Your task to perform on an android device: open app "Facebook Lite" (install if not already installed) Image 0: 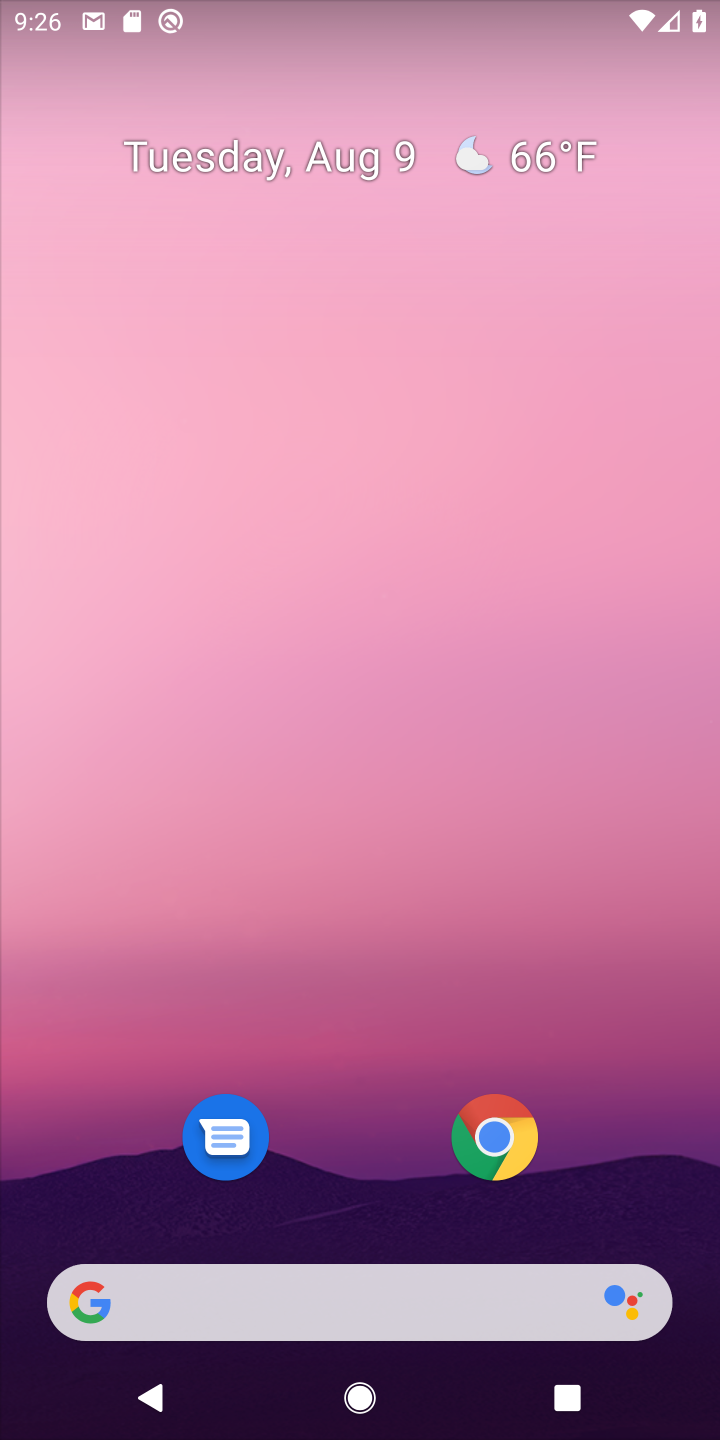
Step 0: drag from (394, 848) to (371, 486)
Your task to perform on an android device: open app "Facebook Lite" (install if not already installed) Image 1: 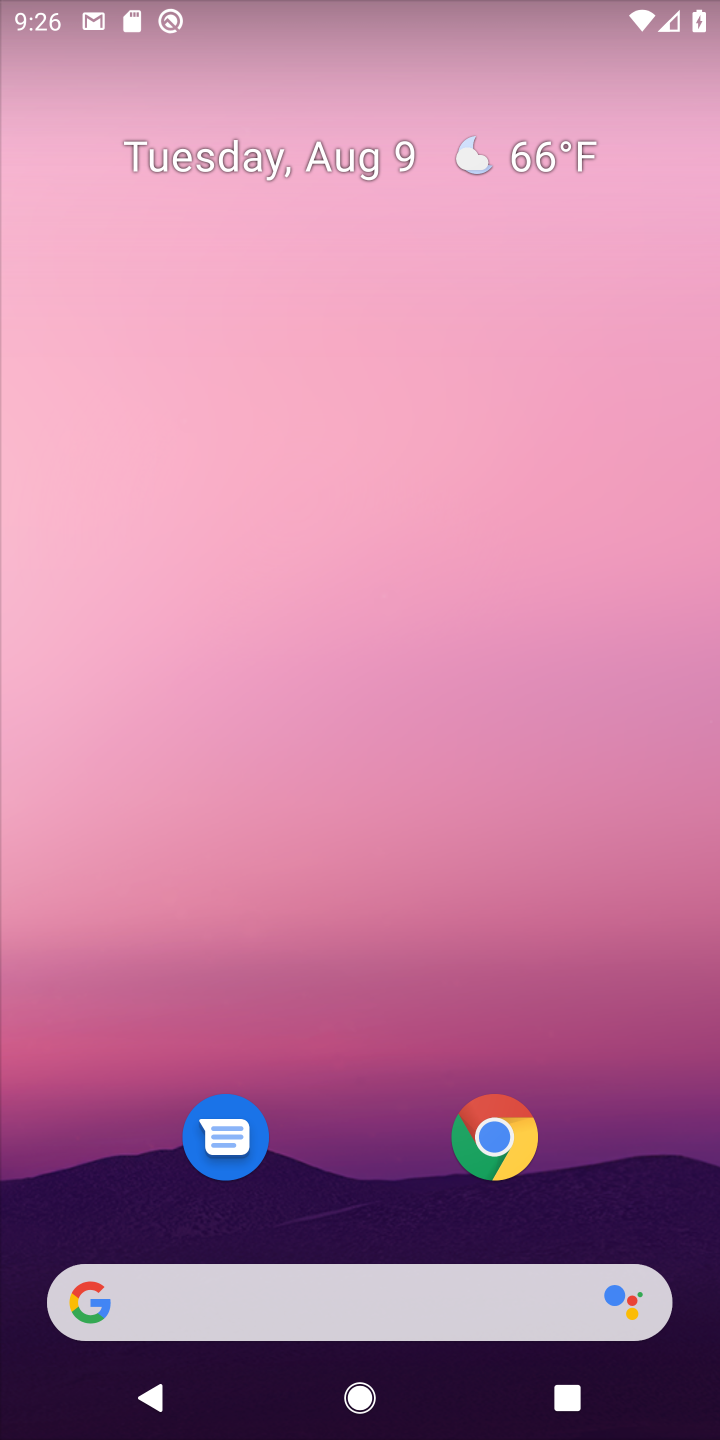
Step 1: drag from (370, 1105) to (388, 670)
Your task to perform on an android device: open app "Facebook Lite" (install if not already installed) Image 2: 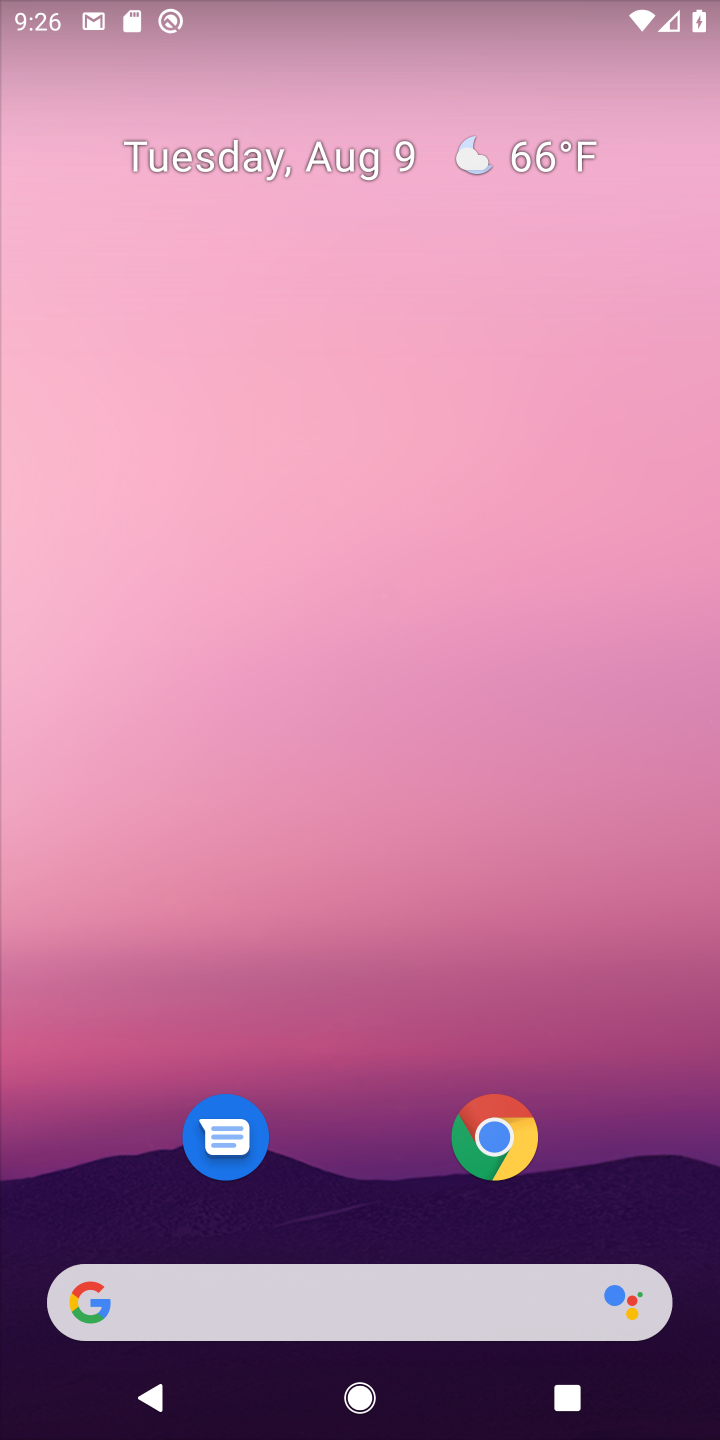
Step 2: drag from (381, 1124) to (323, 349)
Your task to perform on an android device: open app "Facebook Lite" (install if not already installed) Image 3: 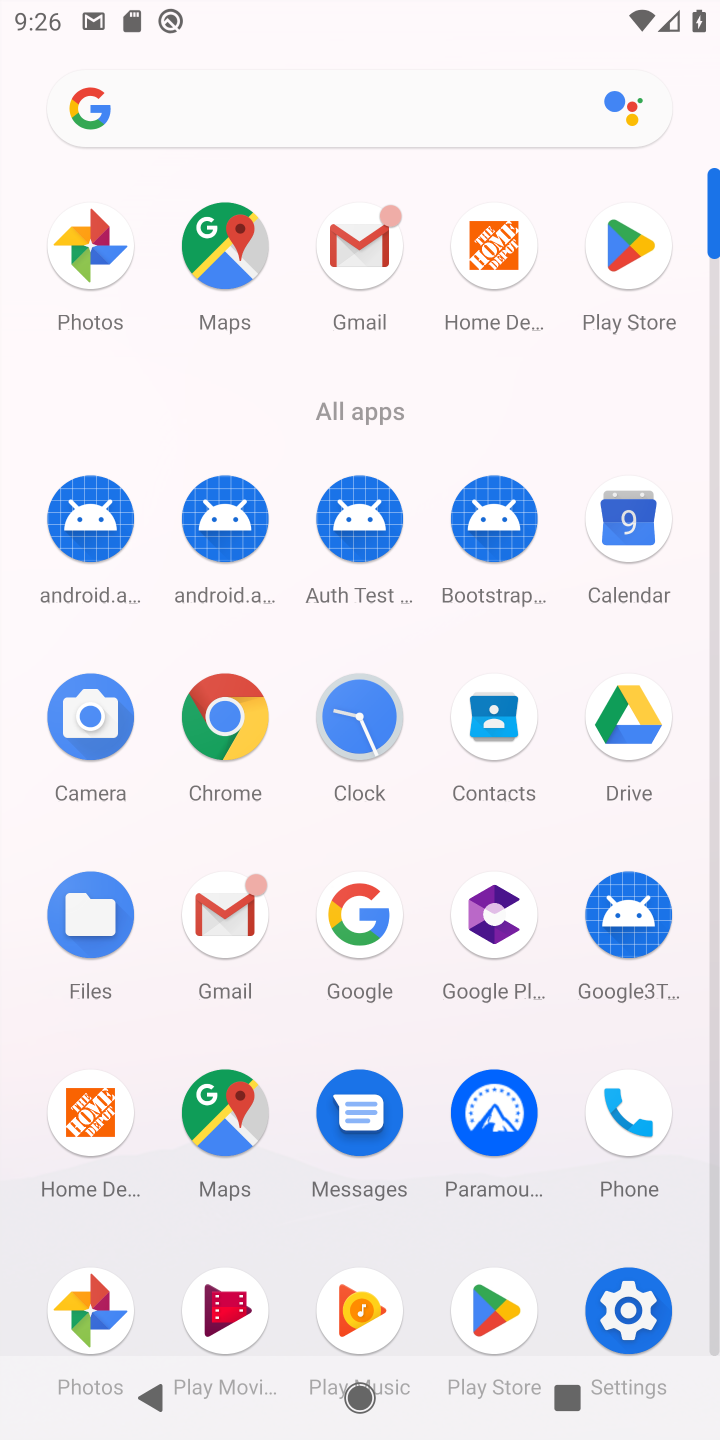
Step 3: click (642, 244)
Your task to perform on an android device: open app "Facebook Lite" (install if not already installed) Image 4: 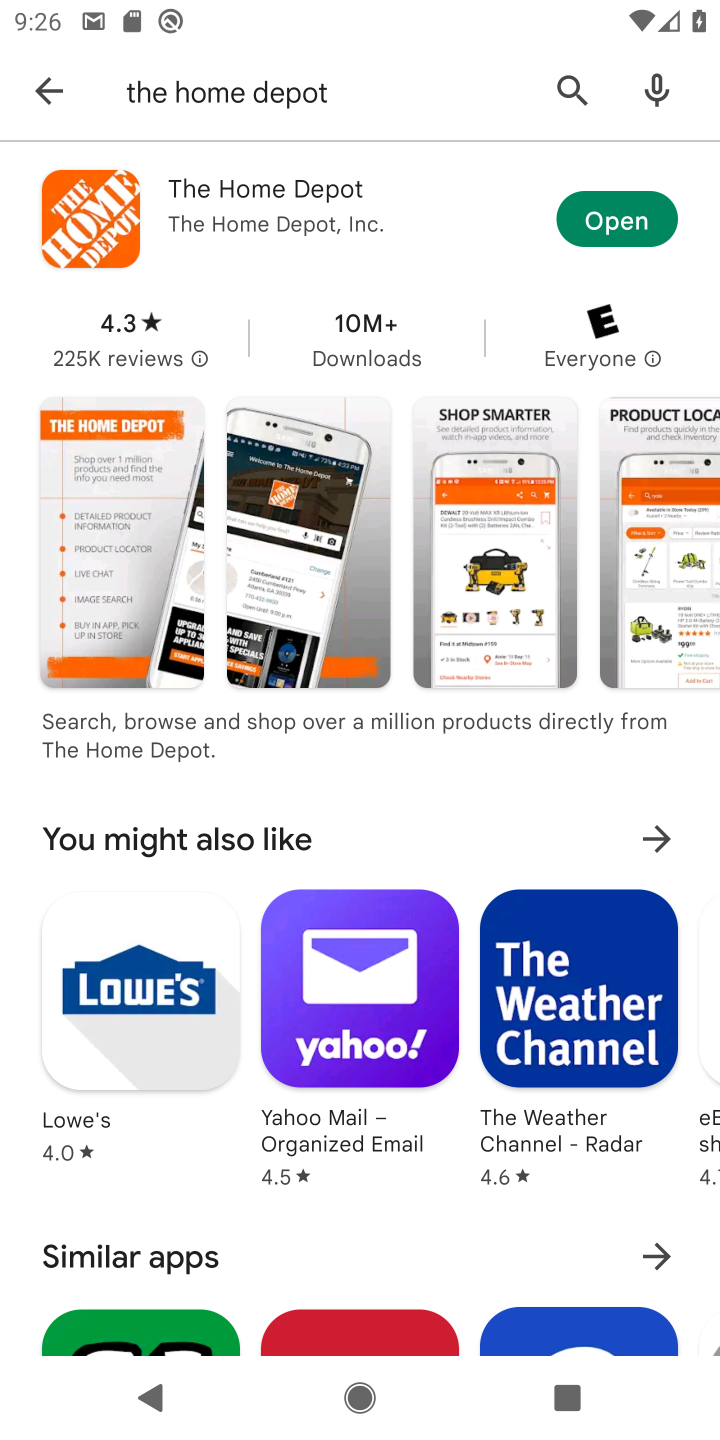
Step 4: click (559, 90)
Your task to perform on an android device: open app "Facebook Lite" (install if not already installed) Image 5: 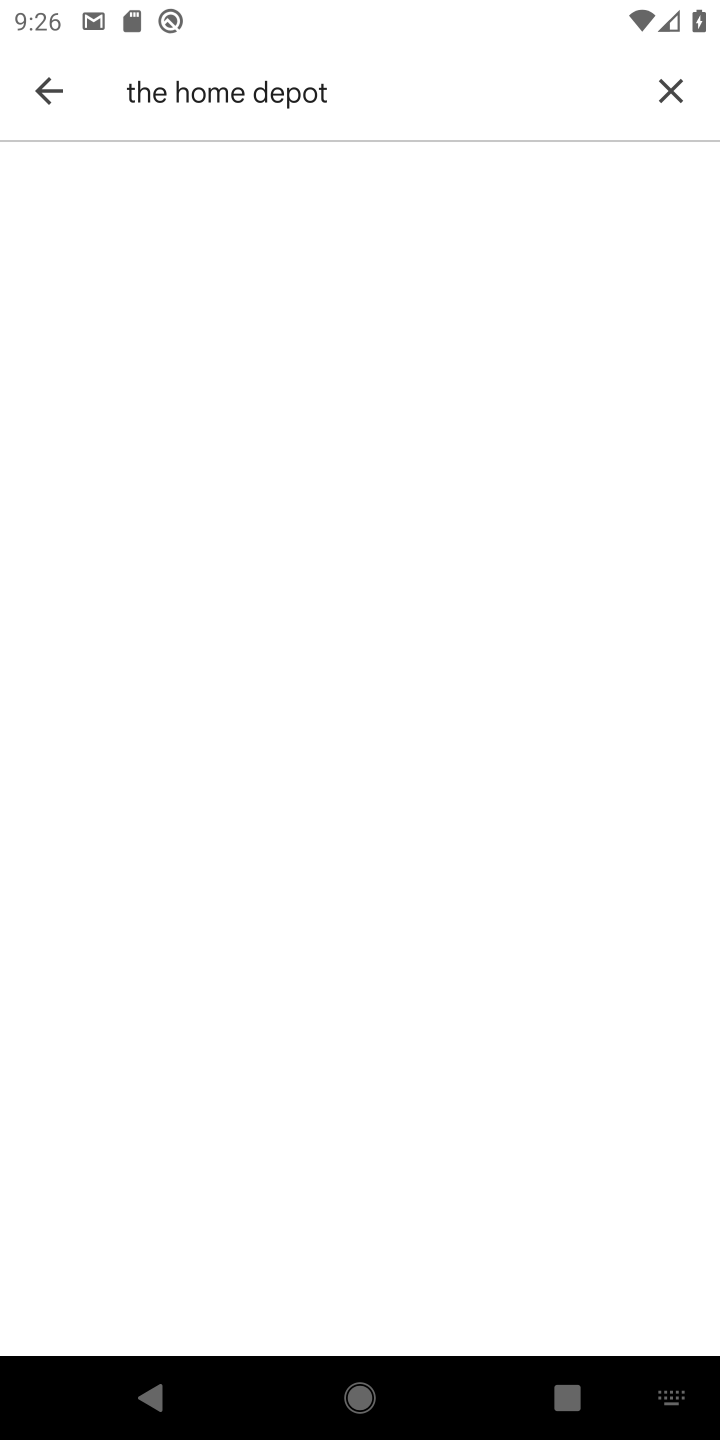
Step 5: click (675, 88)
Your task to perform on an android device: open app "Facebook Lite" (install if not already installed) Image 6: 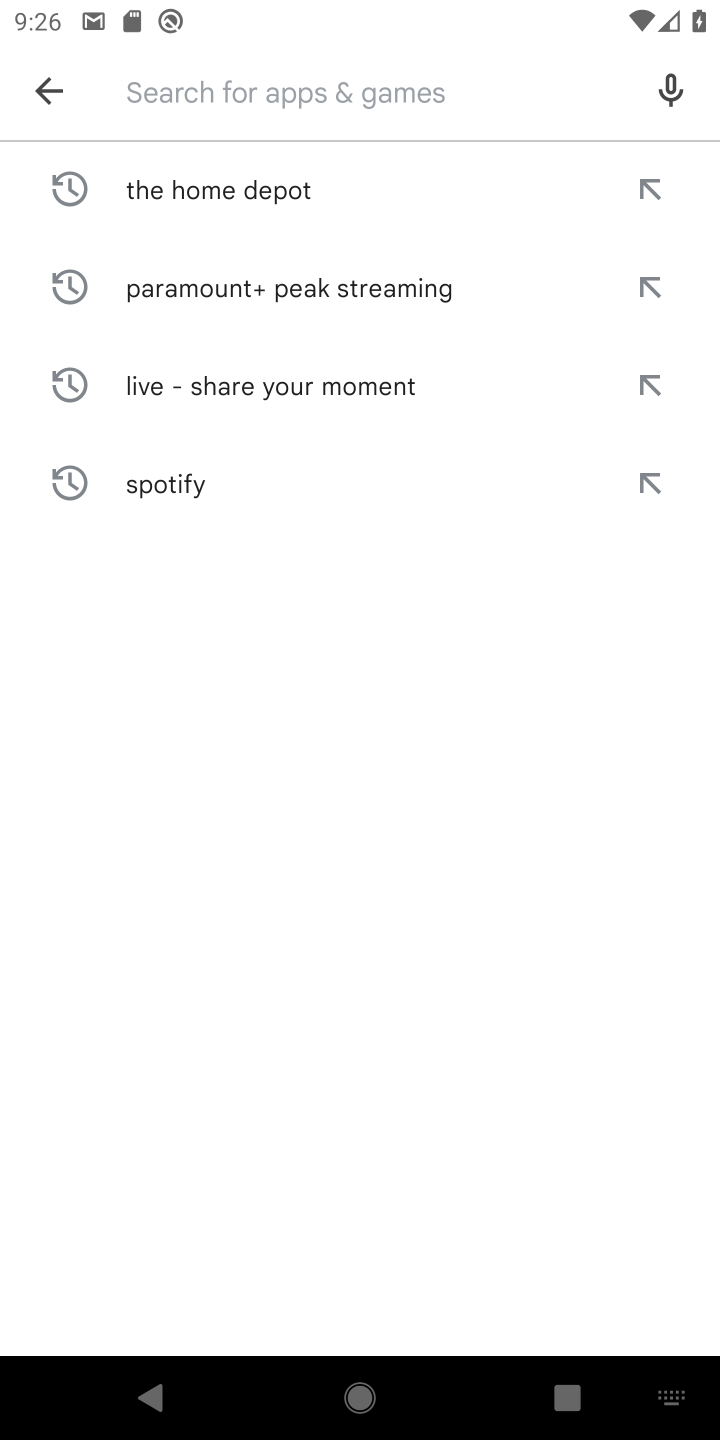
Step 6: type "Facebook Lite"
Your task to perform on an android device: open app "Facebook Lite" (install if not already installed) Image 7: 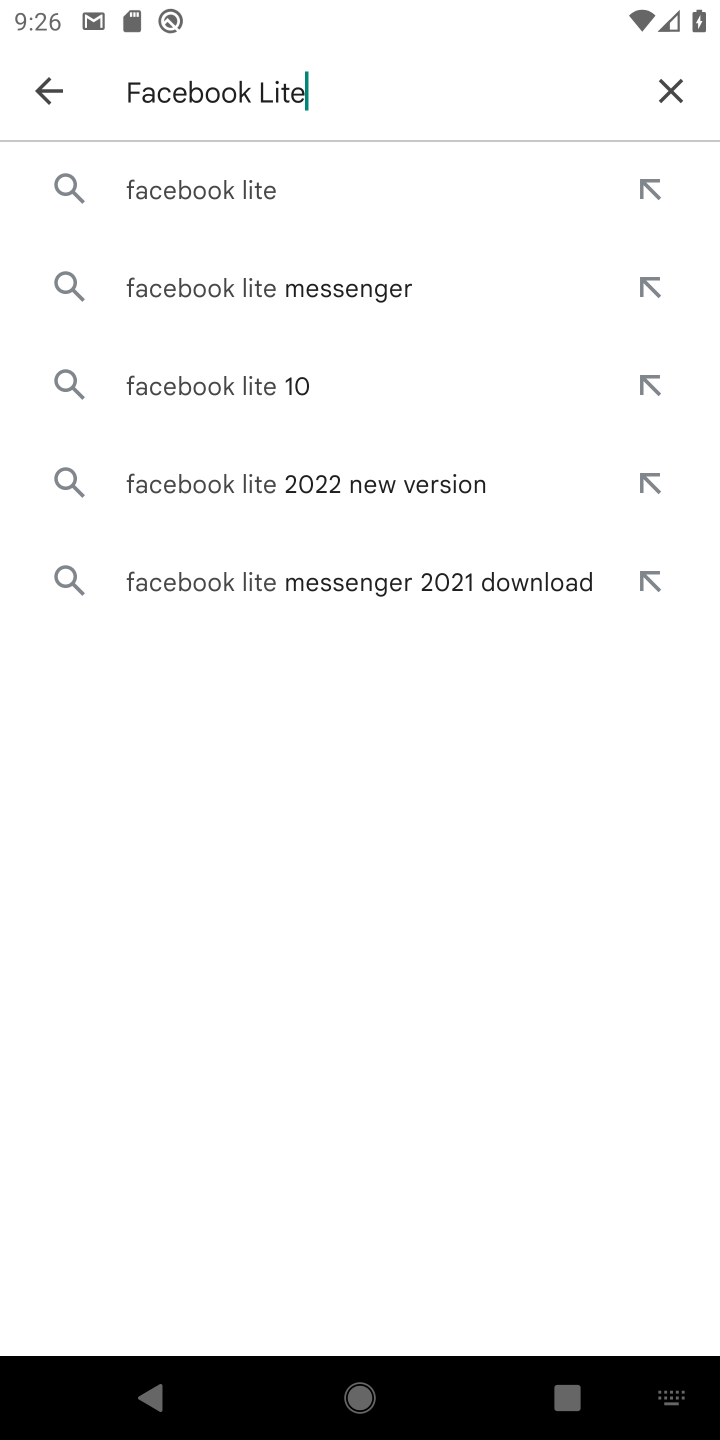
Step 7: click (130, 184)
Your task to perform on an android device: open app "Facebook Lite" (install if not already installed) Image 8: 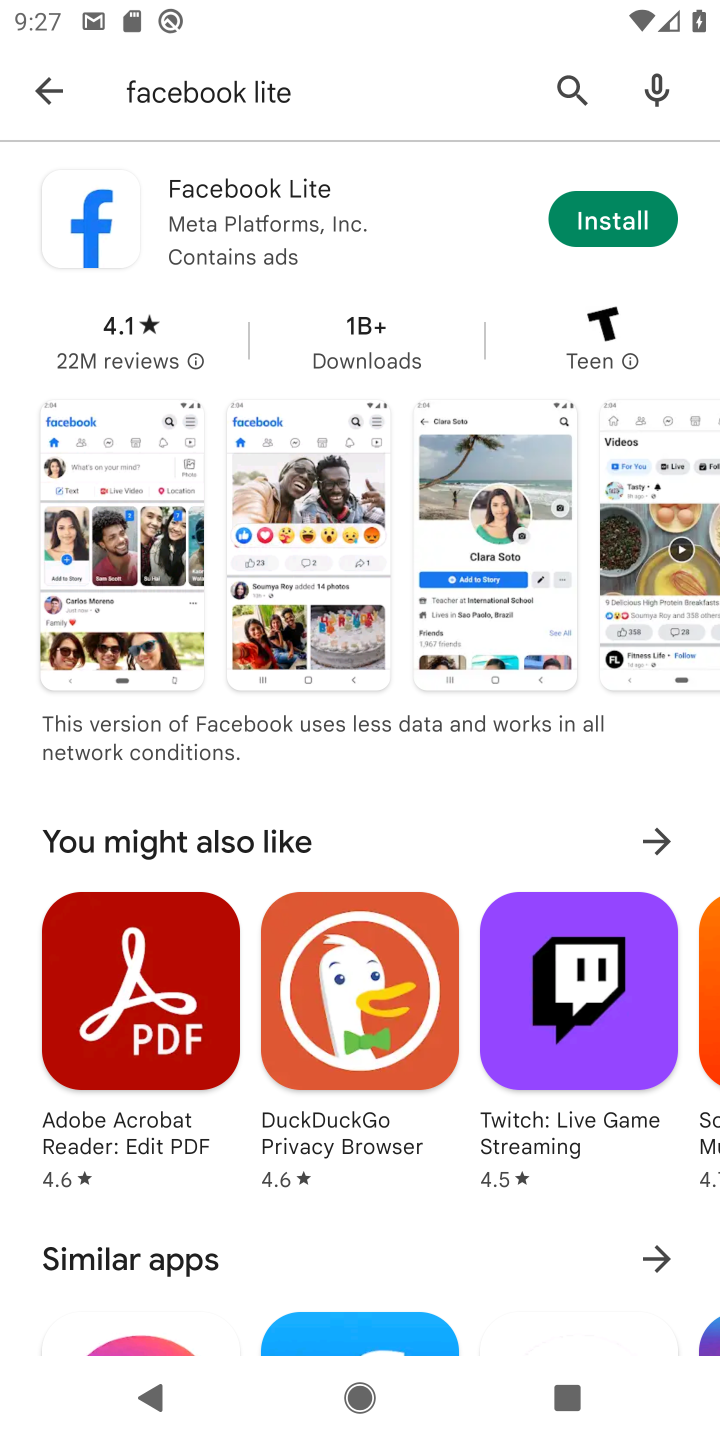
Step 8: click (615, 218)
Your task to perform on an android device: open app "Facebook Lite" (install if not already installed) Image 9: 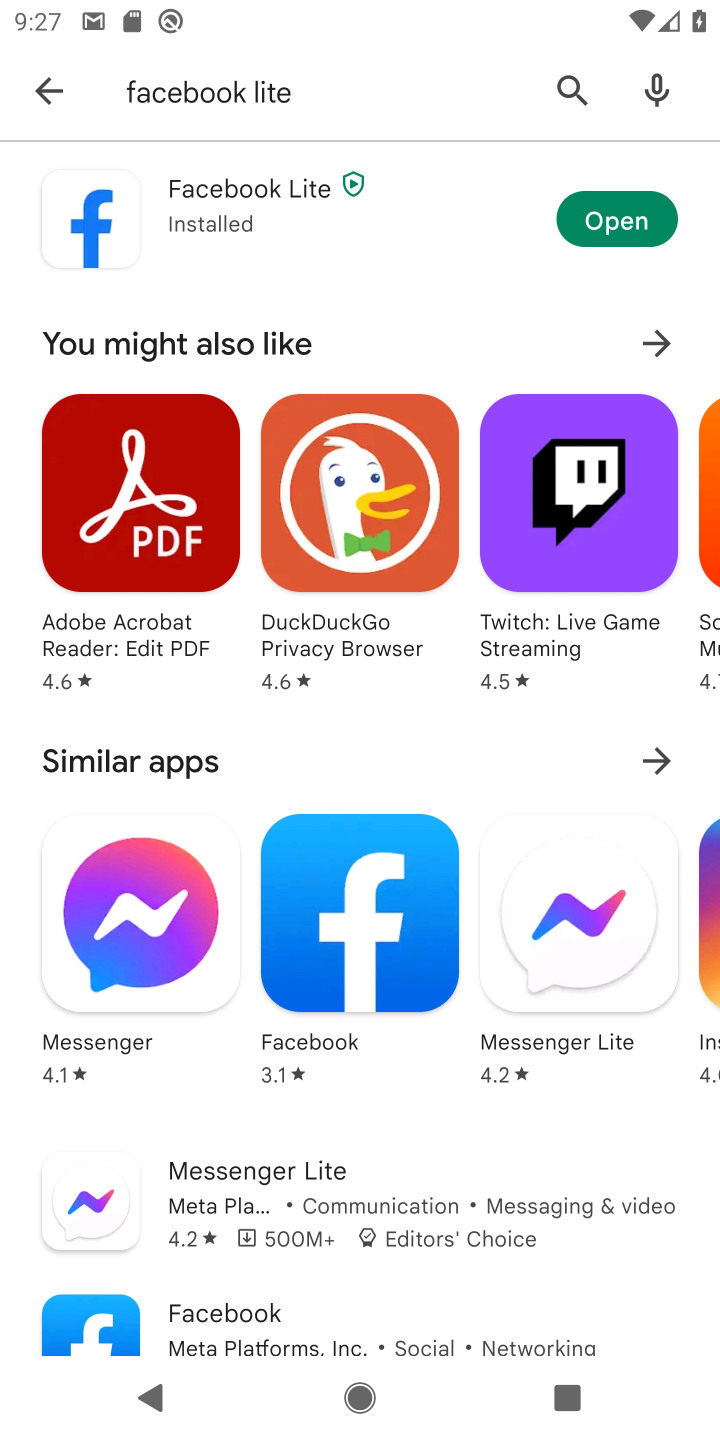
Step 9: click (634, 219)
Your task to perform on an android device: open app "Facebook Lite" (install if not already installed) Image 10: 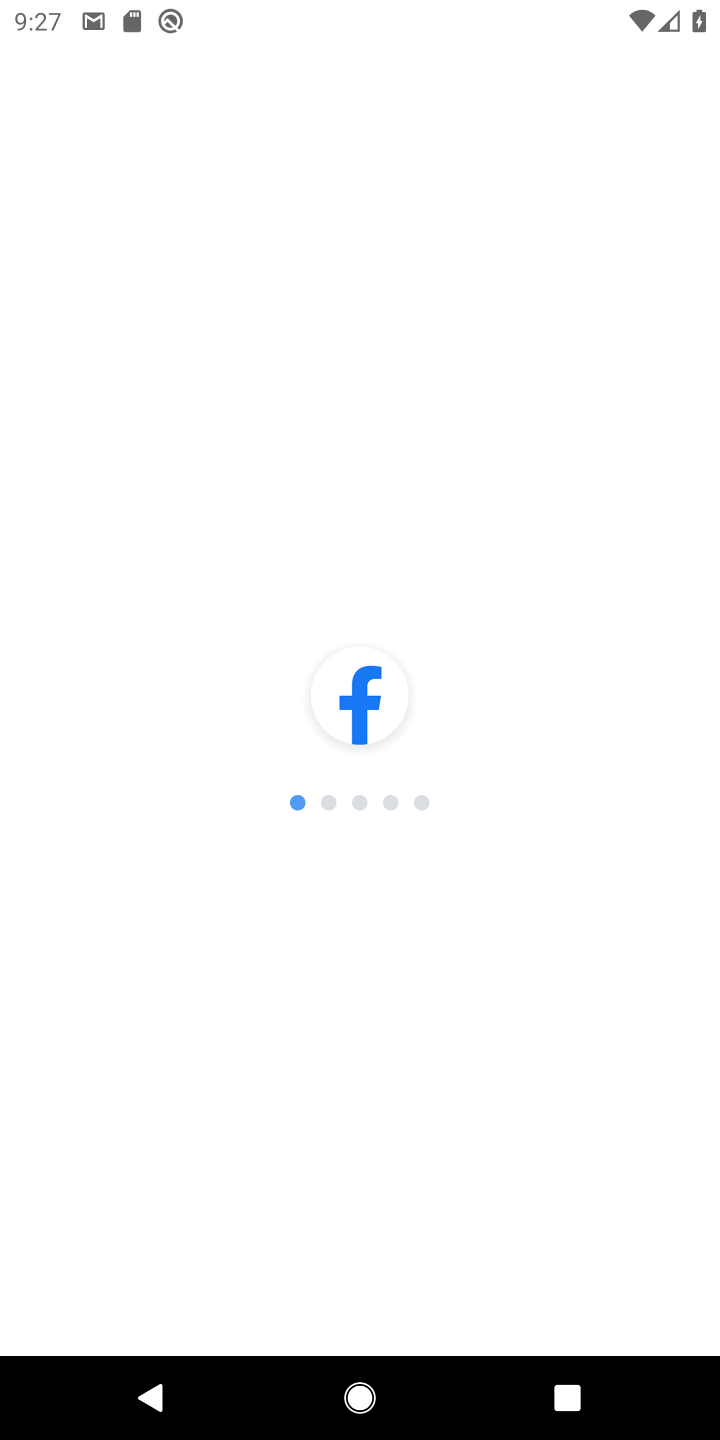
Step 10: task complete